Your task to perform on an android device: toggle javascript in the chrome app Image 0: 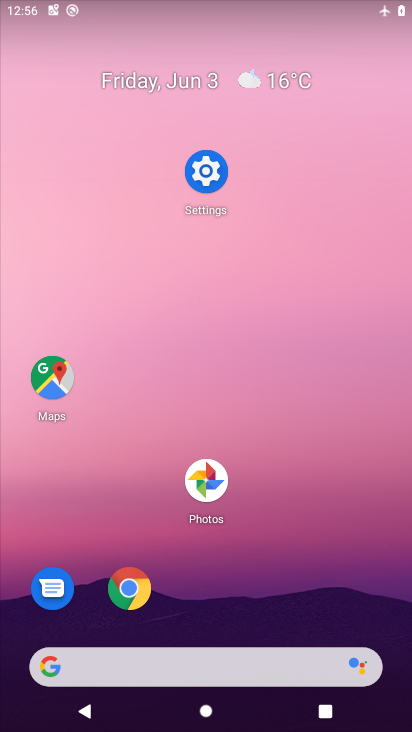
Step 0: drag from (193, 503) to (188, 231)
Your task to perform on an android device: toggle javascript in the chrome app Image 1: 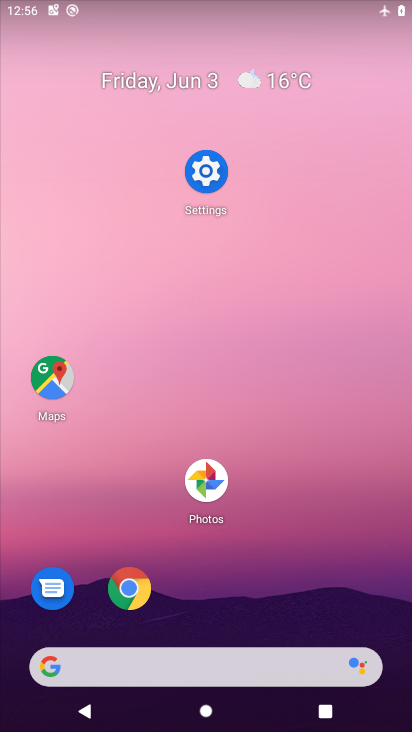
Step 1: drag from (201, 610) to (198, 309)
Your task to perform on an android device: toggle javascript in the chrome app Image 2: 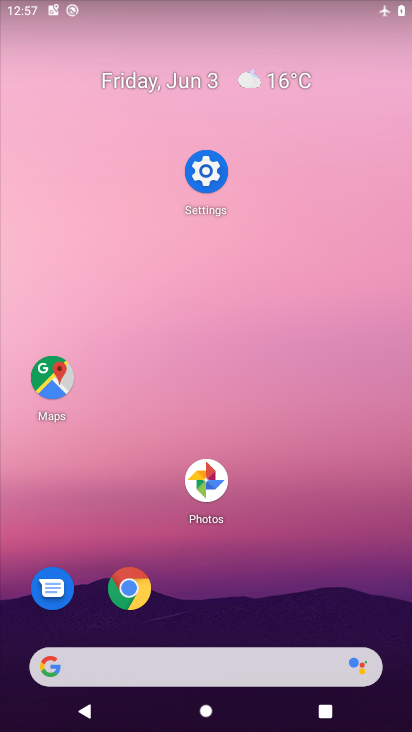
Step 2: drag from (180, 583) to (203, 190)
Your task to perform on an android device: toggle javascript in the chrome app Image 3: 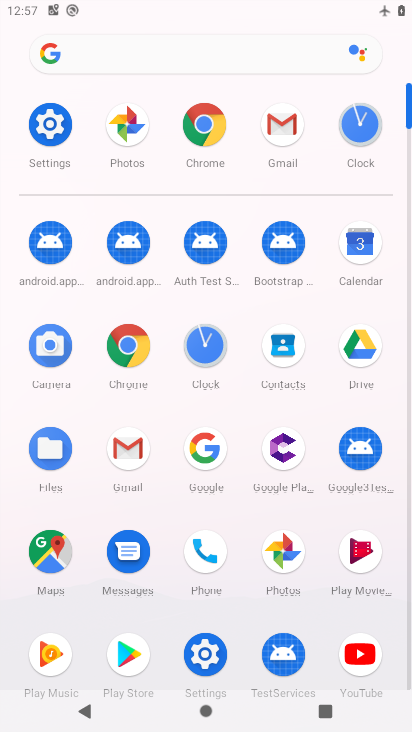
Step 3: click (133, 345)
Your task to perform on an android device: toggle javascript in the chrome app Image 4: 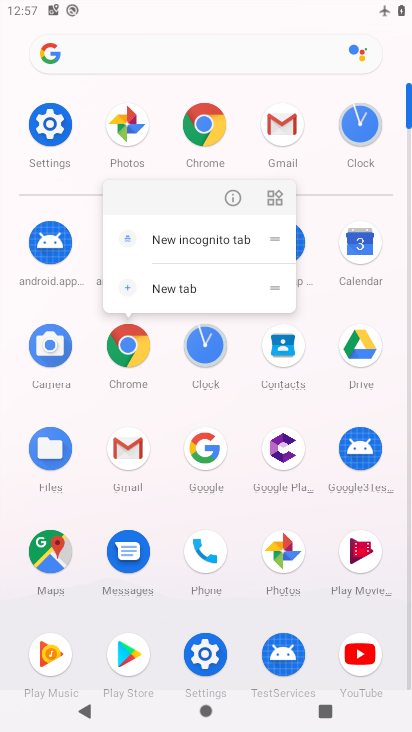
Step 4: click (225, 197)
Your task to perform on an android device: toggle javascript in the chrome app Image 5: 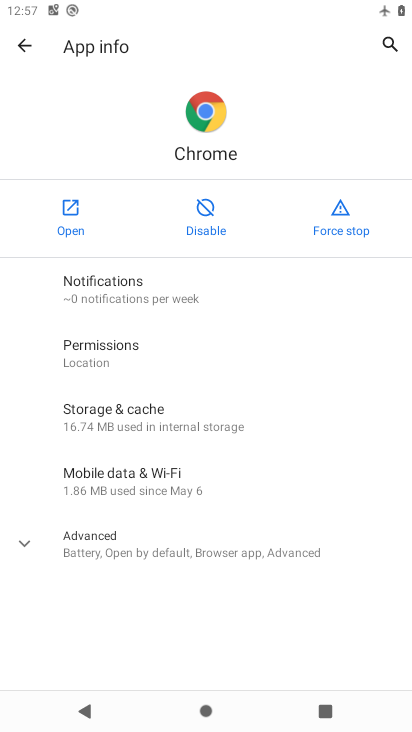
Step 5: click (74, 209)
Your task to perform on an android device: toggle javascript in the chrome app Image 6: 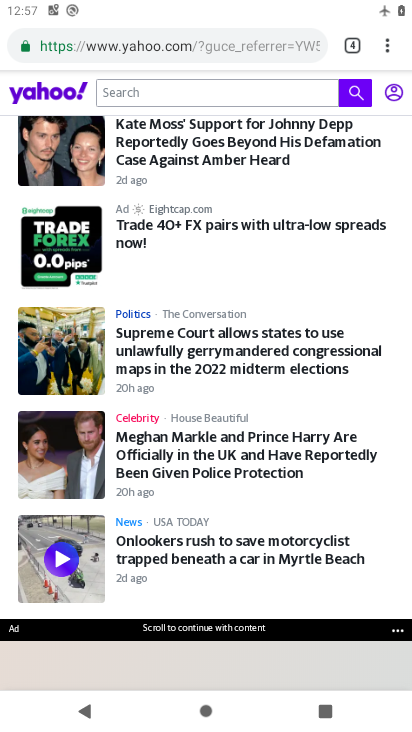
Step 6: drag from (316, 111) to (340, 428)
Your task to perform on an android device: toggle javascript in the chrome app Image 7: 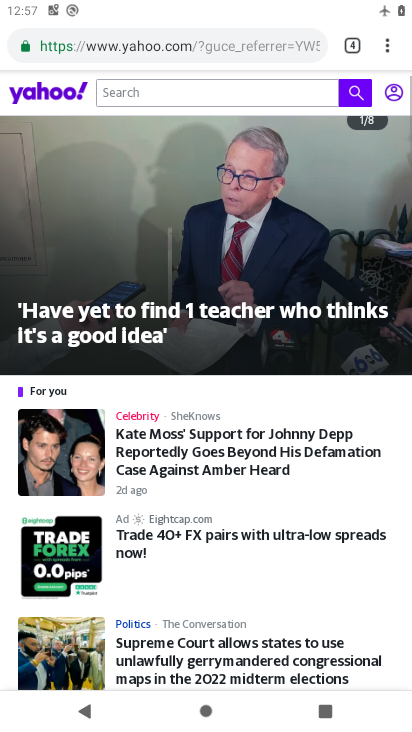
Step 7: click (385, 42)
Your task to perform on an android device: toggle javascript in the chrome app Image 8: 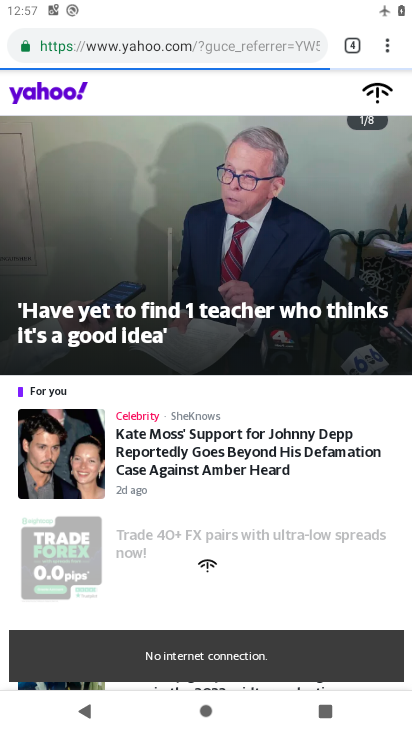
Step 8: drag from (384, 42) to (253, 504)
Your task to perform on an android device: toggle javascript in the chrome app Image 9: 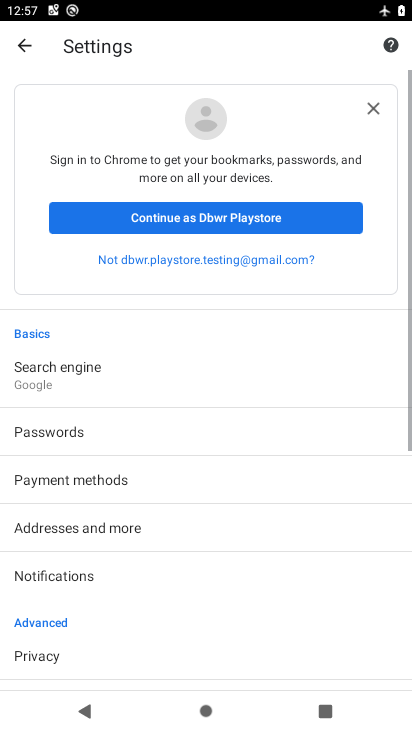
Step 9: drag from (235, 566) to (254, 169)
Your task to perform on an android device: toggle javascript in the chrome app Image 10: 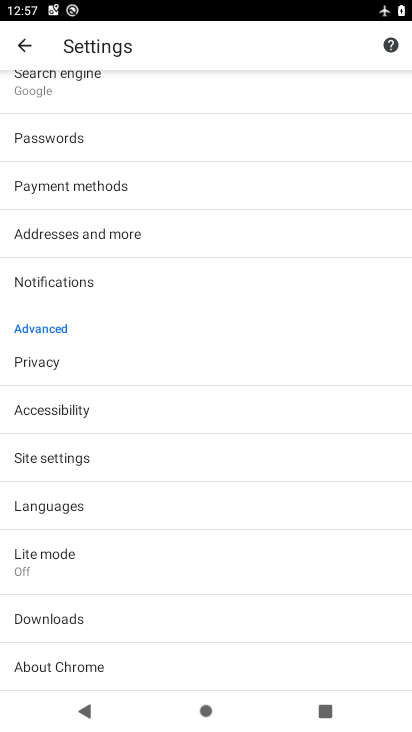
Step 10: click (136, 457)
Your task to perform on an android device: toggle javascript in the chrome app Image 11: 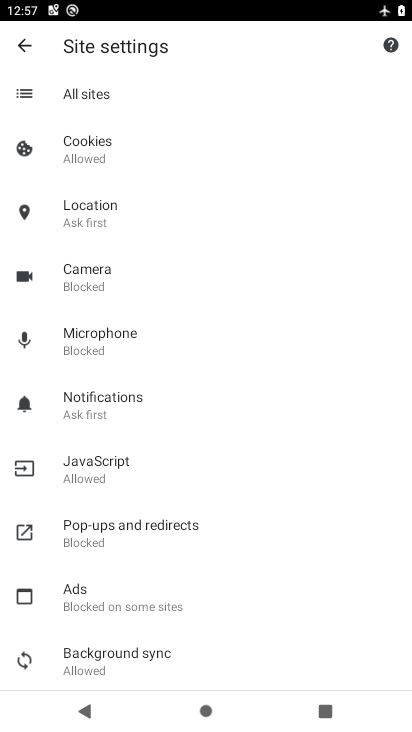
Step 11: click (119, 472)
Your task to perform on an android device: toggle javascript in the chrome app Image 12: 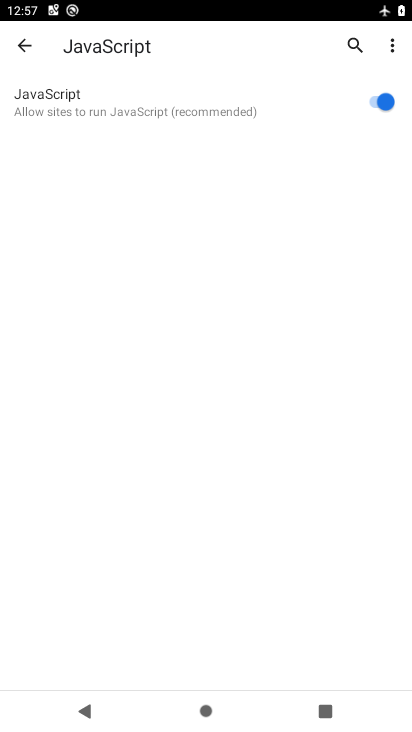
Step 12: click (374, 106)
Your task to perform on an android device: toggle javascript in the chrome app Image 13: 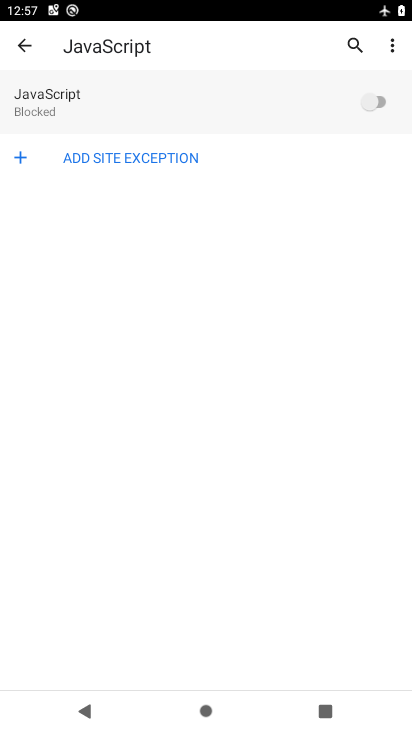
Step 13: task complete